Your task to perform on an android device: turn on improve location accuracy Image 0: 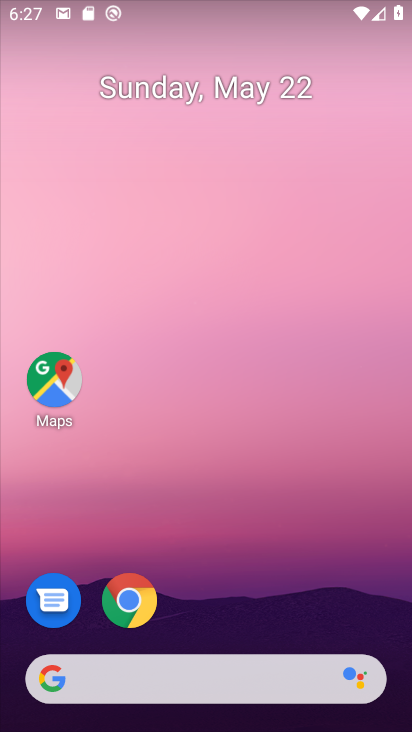
Step 0: drag from (382, 613) to (259, 135)
Your task to perform on an android device: turn on improve location accuracy Image 1: 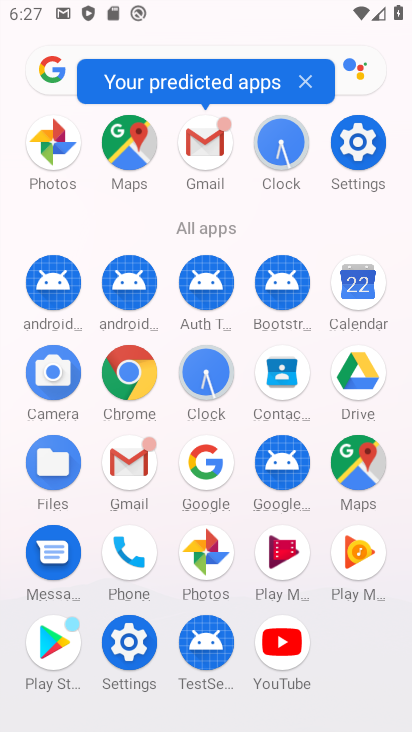
Step 1: click (364, 157)
Your task to perform on an android device: turn on improve location accuracy Image 2: 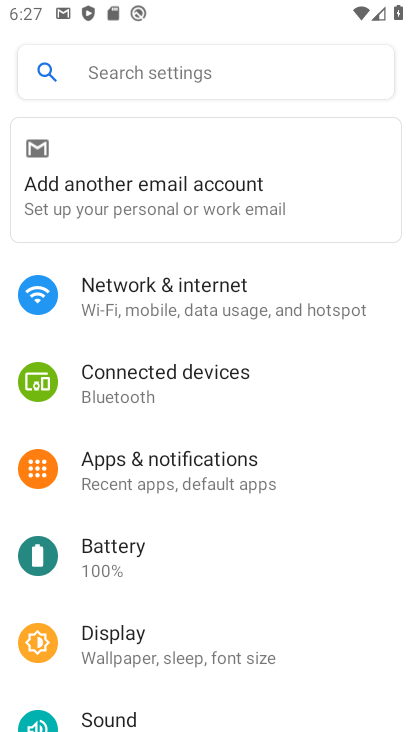
Step 2: drag from (148, 627) to (182, 400)
Your task to perform on an android device: turn on improve location accuracy Image 3: 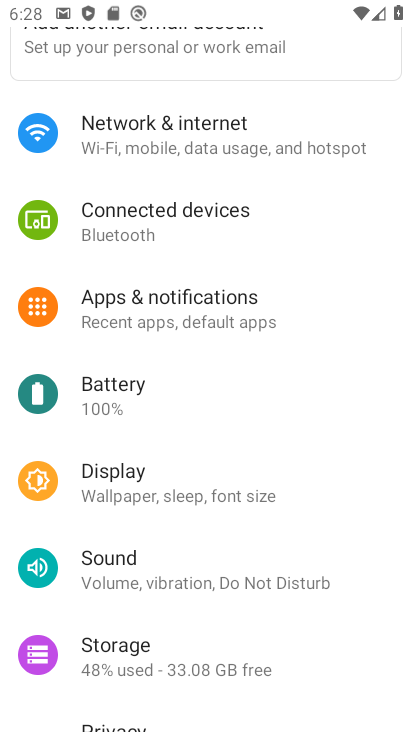
Step 3: drag from (126, 641) to (144, 440)
Your task to perform on an android device: turn on improve location accuracy Image 4: 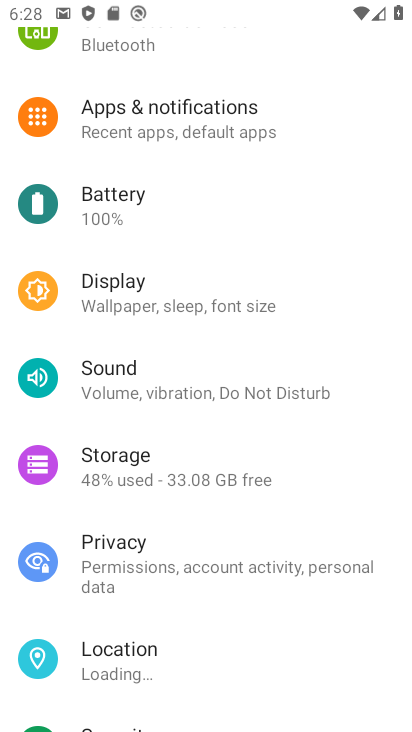
Step 4: click (132, 656)
Your task to perform on an android device: turn on improve location accuracy Image 5: 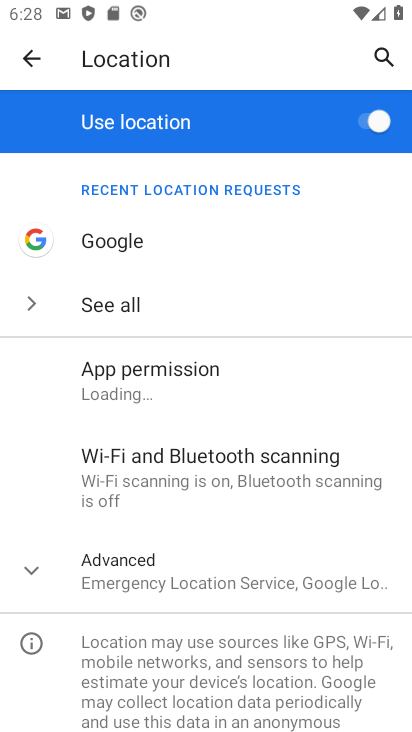
Step 5: click (154, 575)
Your task to perform on an android device: turn on improve location accuracy Image 6: 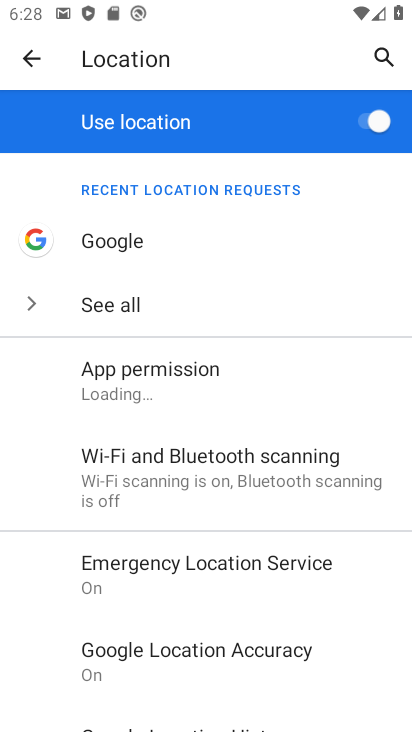
Step 6: click (187, 684)
Your task to perform on an android device: turn on improve location accuracy Image 7: 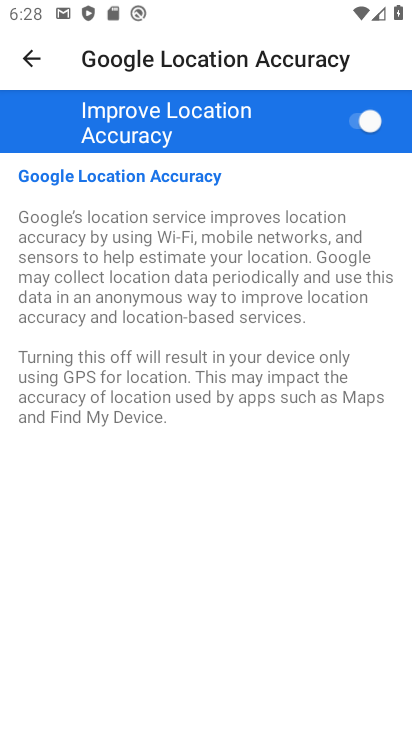
Step 7: task complete